Your task to perform on an android device: turn off notifications settings in the gmail app Image 0: 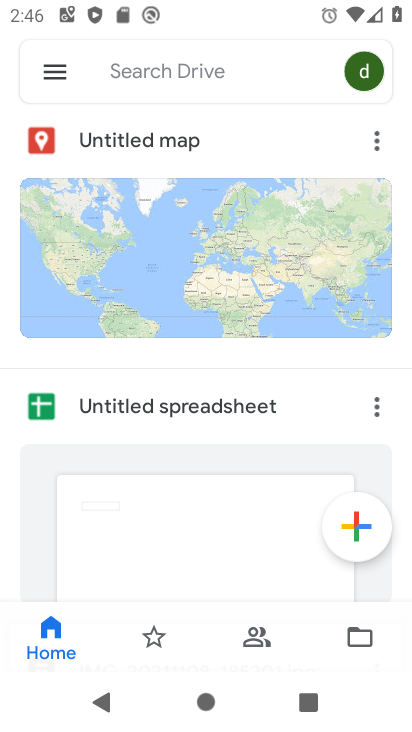
Step 0: press home button
Your task to perform on an android device: turn off notifications settings in the gmail app Image 1: 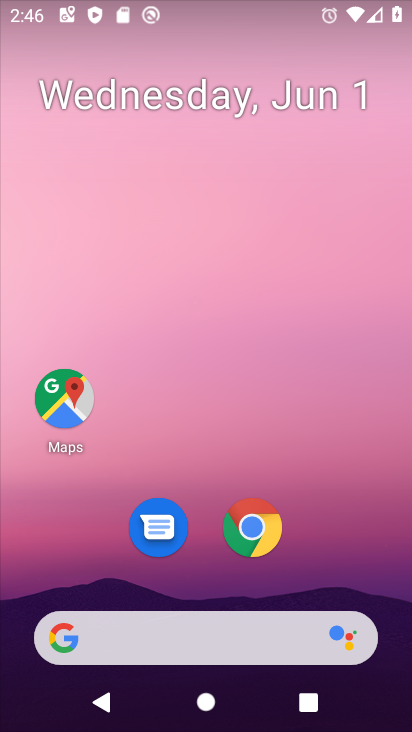
Step 1: drag from (341, 556) to (228, 17)
Your task to perform on an android device: turn off notifications settings in the gmail app Image 2: 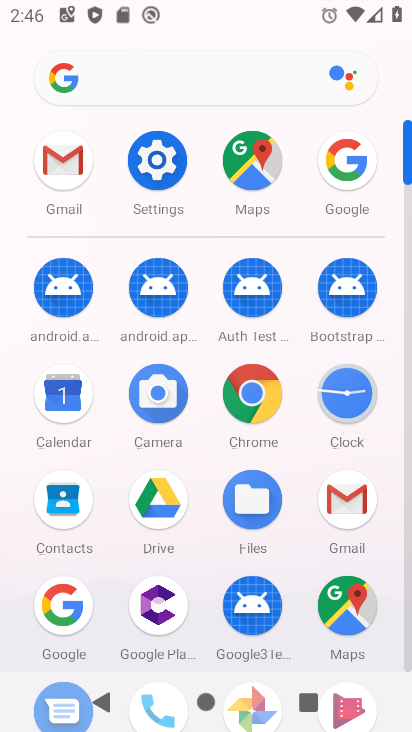
Step 2: click (64, 160)
Your task to perform on an android device: turn off notifications settings in the gmail app Image 3: 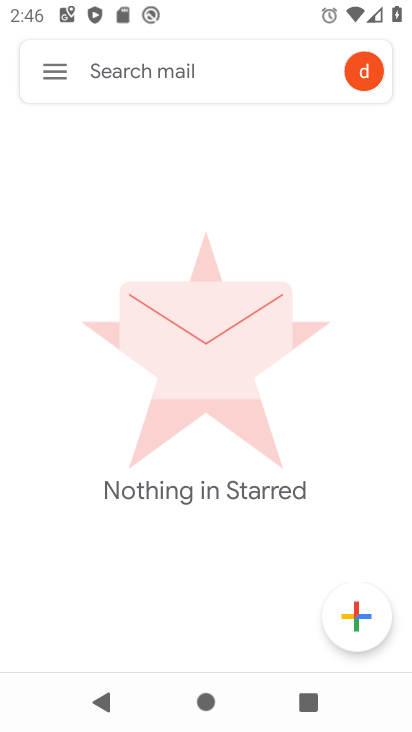
Step 3: click (59, 73)
Your task to perform on an android device: turn off notifications settings in the gmail app Image 4: 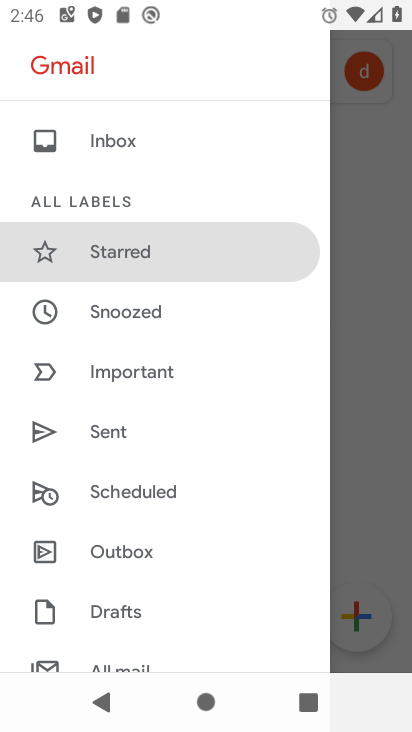
Step 4: drag from (145, 448) to (123, 346)
Your task to perform on an android device: turn off notifications settings in the gmail app Image 5: 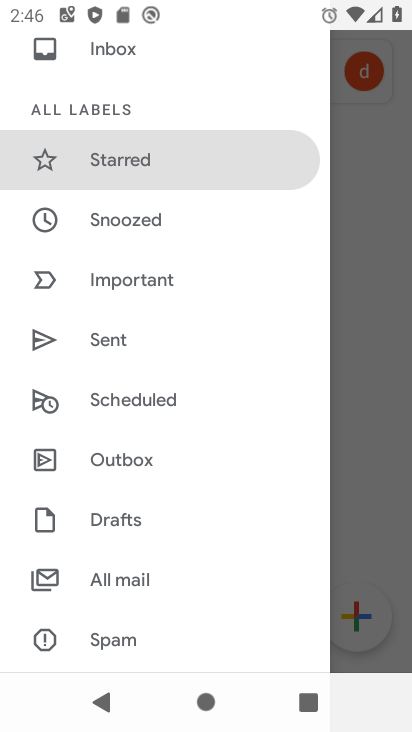
Step 5: drag from (118, 432) to (132, 339)
Your task to perform on an android device: turn off notifications settings in the gmail app Image 6: 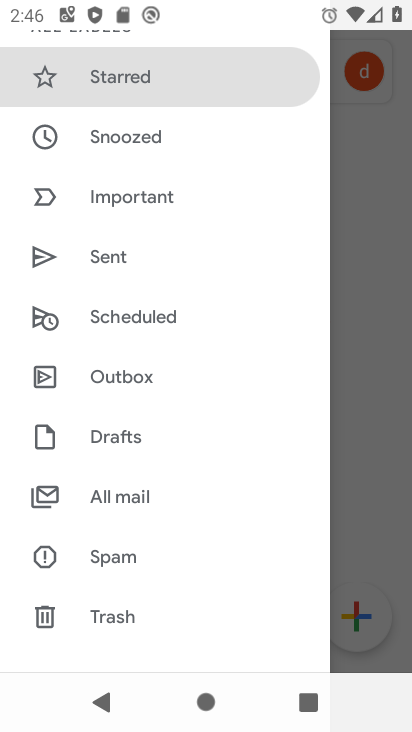
Step 6: drag from (107, 462) to (132, 368)
Your task to perform on an android device: turn off notifications settings in the gmail app Image 7: 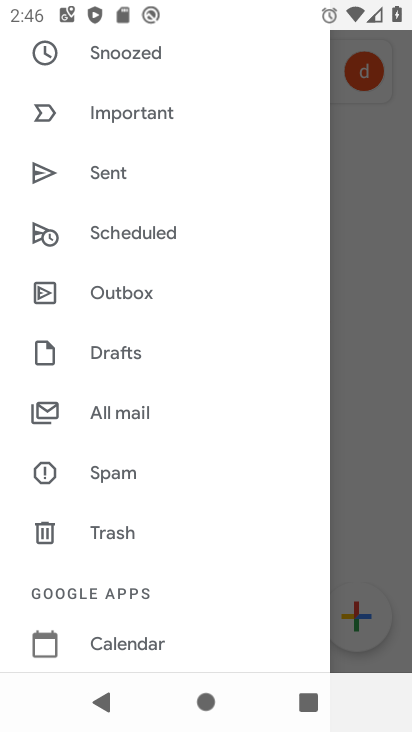
Step 7: drag from (98, 445) to (101, 349)
Your task to perform on an android device: turn off notifications settings in the gmail app Image 8: 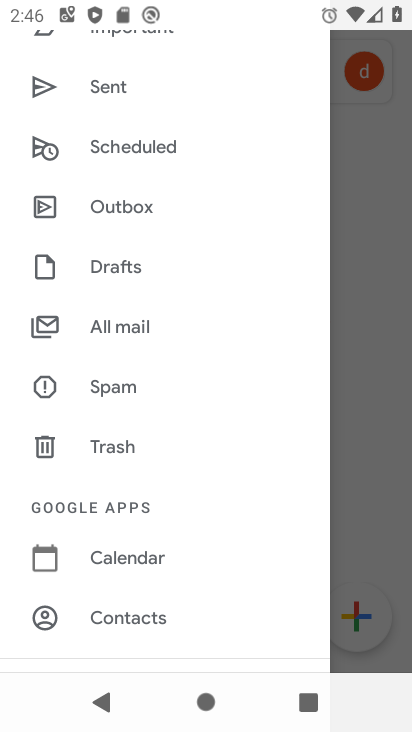
Step 8: drag from (112, 417) to (111, 332)
Your task to perform on an android device: turn off notifications settings in the gmail app Image 9: 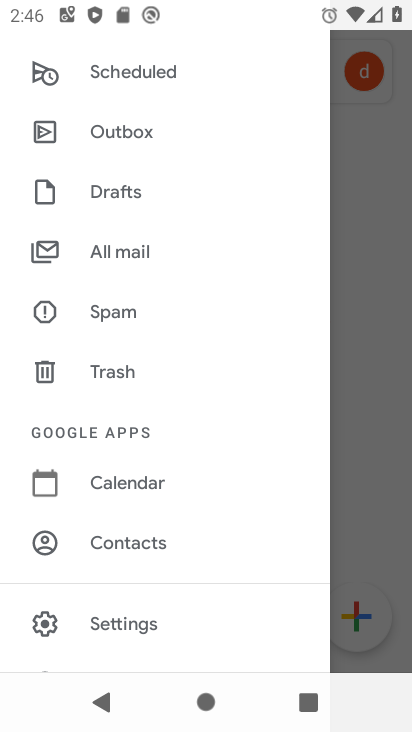
Step 9: drag from (102, 509) to (117, 399)
Your task to perform on an android device: turn off notifications settings in the gmail app Image 10: 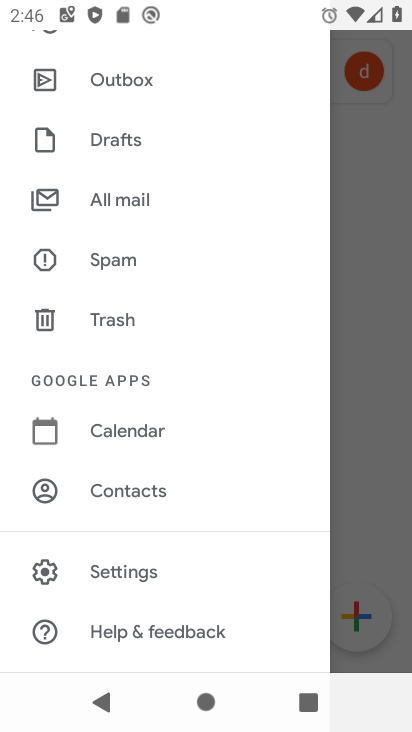
Step 10: click (147, 575)
Your task to perform on an android device: turn off notifications settings in the gmail app Image 11: 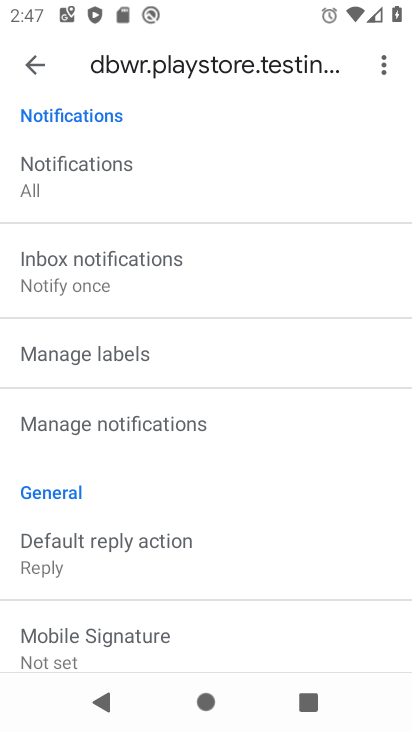
Step 11: click (154, 428)
Your task to perform on an android device: turn off notifications settings in the gmail app Image 12: 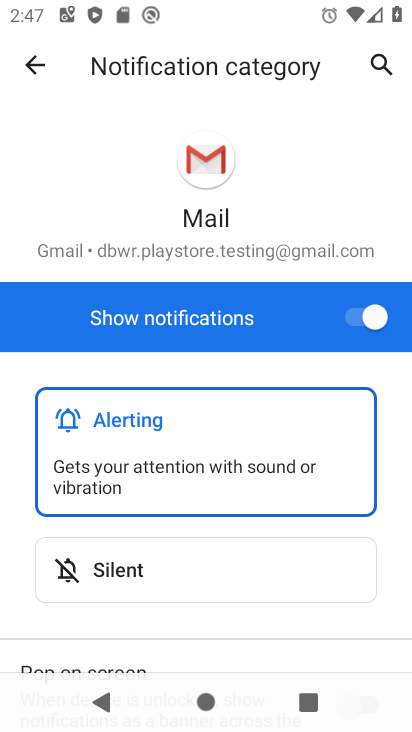
Step 12: click (357, 323)
Your task to perform on an android device: turn off notifications settings in the gmail app Image 13: 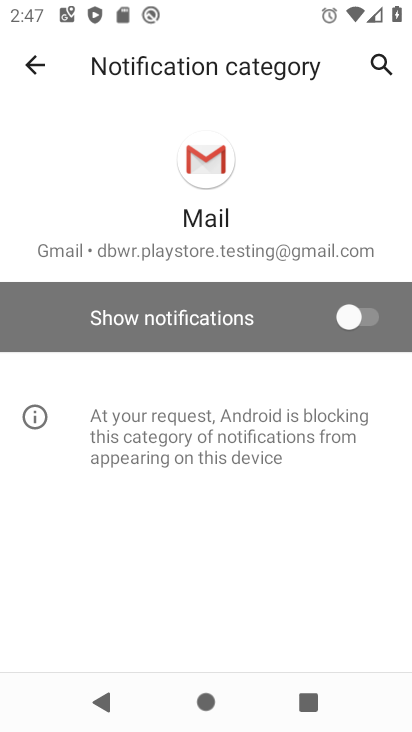
Step 13: task complete